Your task to perform on an android device: Open Yahoo.com Image 0: 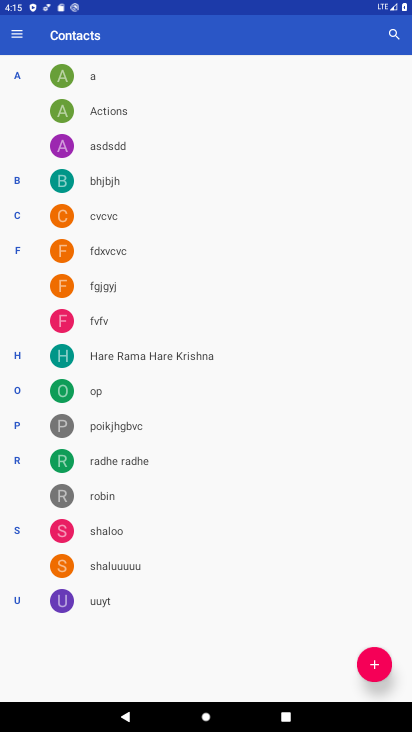
Step 0: press home button
Your task to perform on an android device: Open Yahoo.com Image 1: 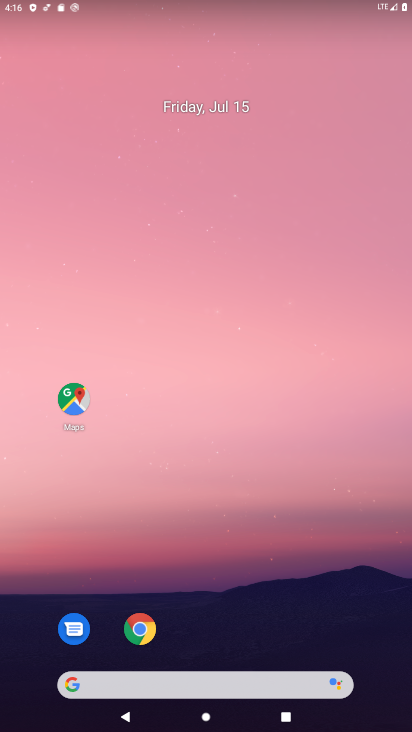
Step 1: click (145, 638)
Your task to perform on an android device: Open Yahoo.com Image 2: 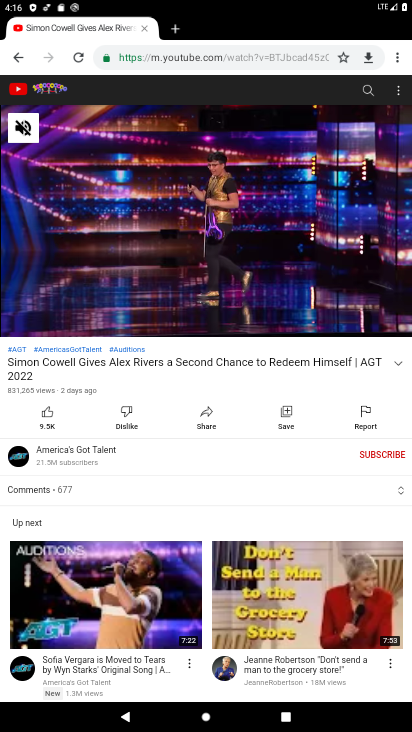
Step 2: click (292, 64)
Your task to perform on an android device: Open Yahoo.com Image 3: 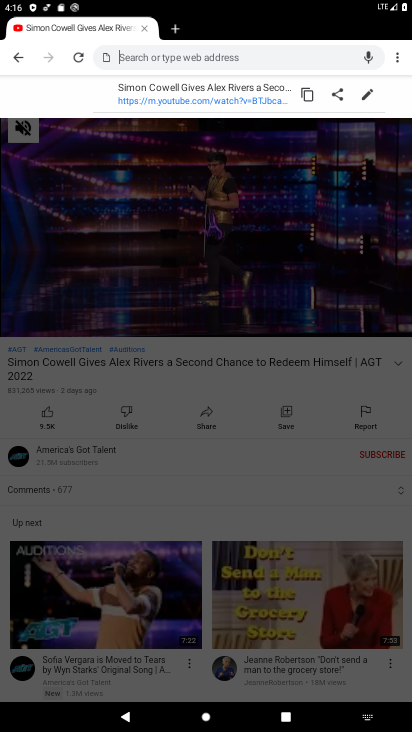
Step 3: type "www.yahoo.com"
Your task to perform on an android device: Open Yahoo.com Image 4: 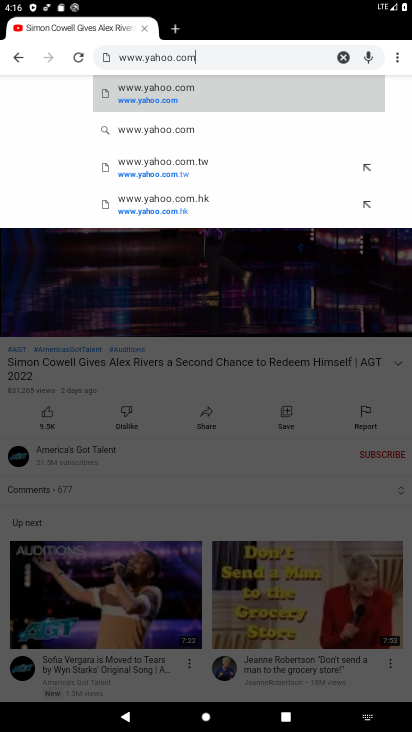
Step 4: click (124, 93)
Your task to perform on an android device: Open Yahoo.com Image 5: 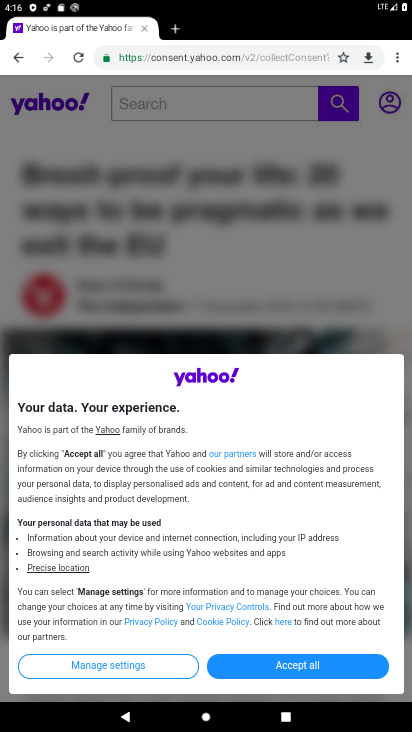
Step 5: task complete